Your task to perform on an android device: change keyboard looks Image 0: 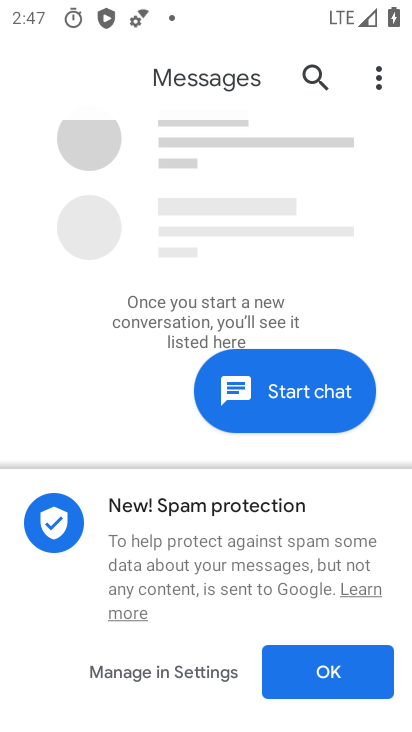
Step 0: press home button
Your task to perform on an android device: change keyboard looks Image 1: 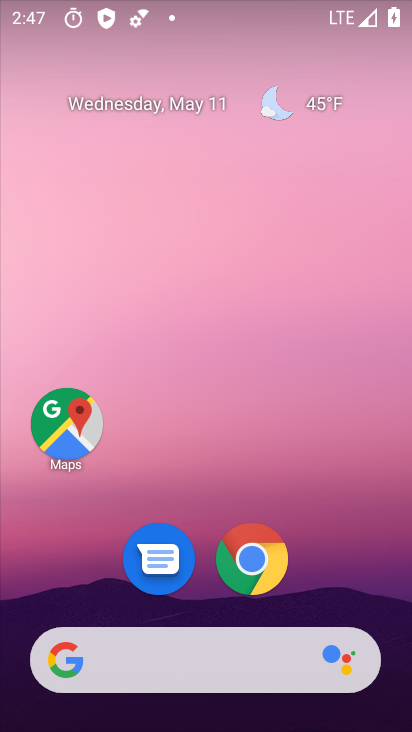
Step 1: drag from (317, 538) to (223, 77)
Your task to perform on an android device: change keyboard looks Image 2: 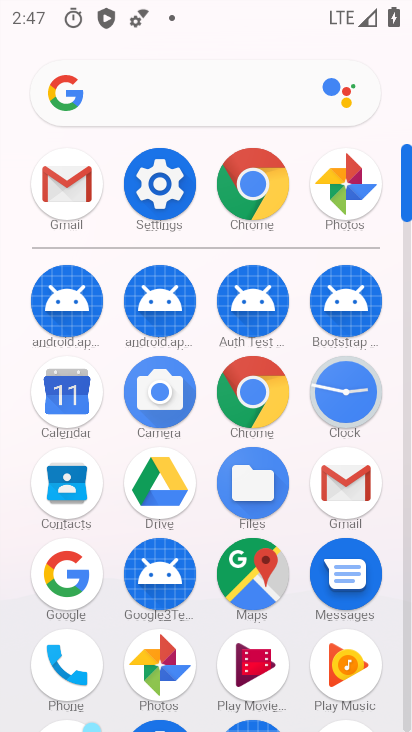
Step 2: click (156, 203)
Your task to perform on an android device: change keyboard looks Image 3: 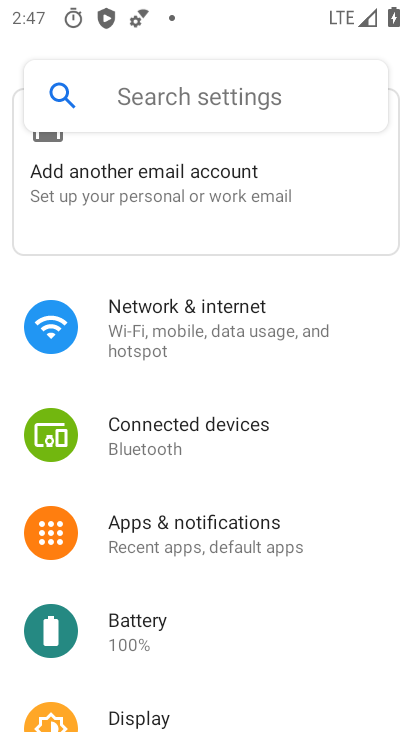
Step 3: drag from (232, 671) to (206, 146)
Your task to perform on an android device: change keyboard looks Image 4: 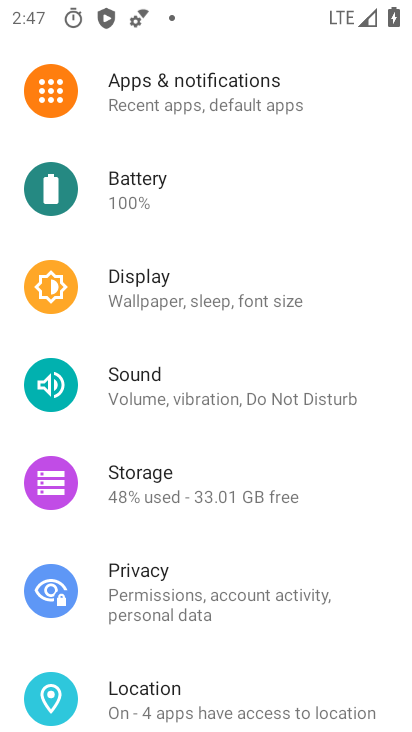
Step 4: drag from (223, 680) to (200, 178)
Your task to perform on an android device: change keyboard looks Image 5: 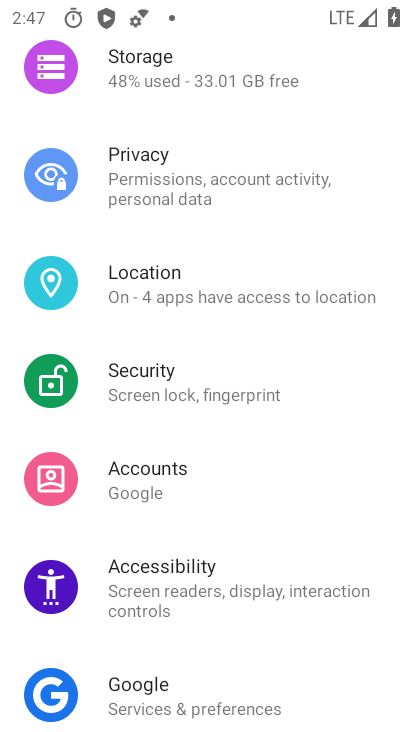
Step 5: drag from (236, 602) to (248, 196)
Your task to perform on an android device: change keyboard looks Image 6: 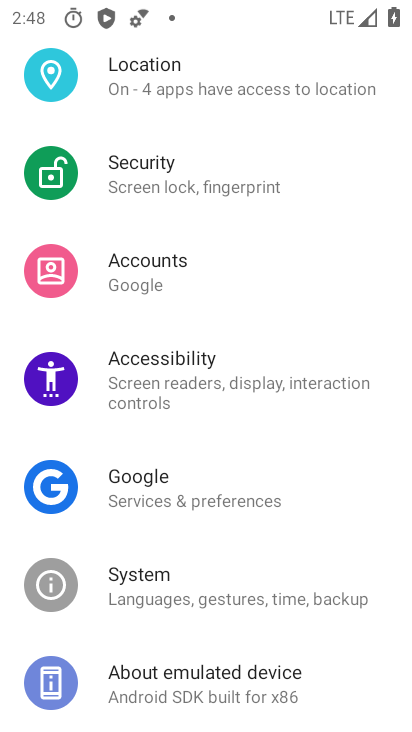
Step 6: click (157, 591)
Your task to perform on an android device: change keyboard looks Image 7: 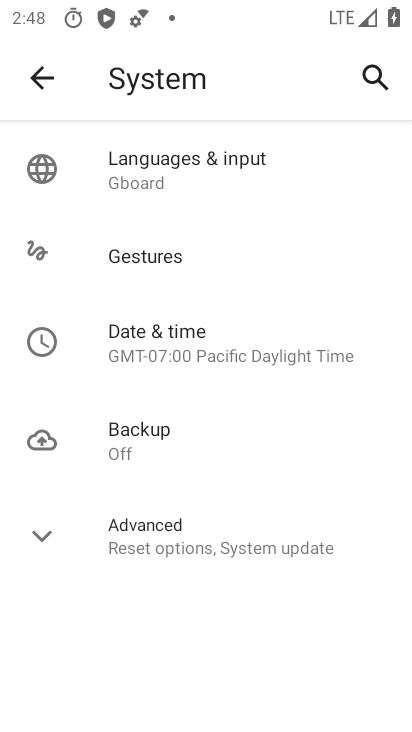
Step 7: click (182, 190)
Your task to perform on an android device: change keyboard looks Image 8: 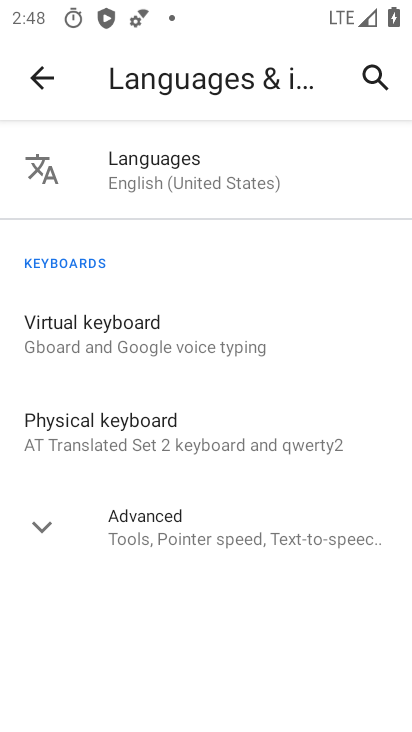
Step 8: click (164, 327)
Your task to perform on an android device: change keyboard looks Image 9: 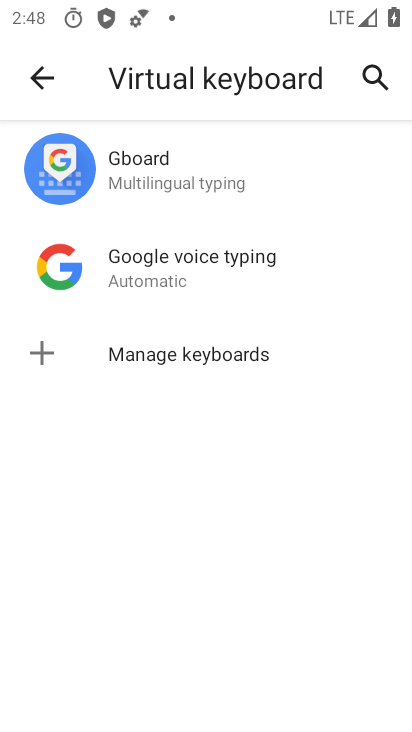
Step 9: click (194, 168)
Your task to perform on an android device: change keyboard looks Image 10: 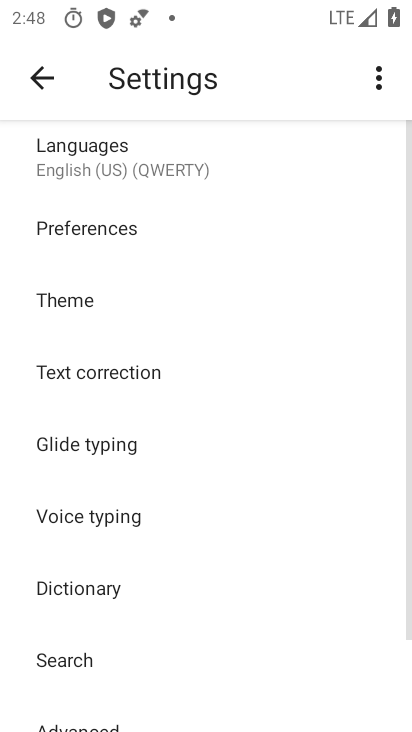
Step 10: click (117, 302)
Your task to perform on an android device: change keyboard looks Image 11: 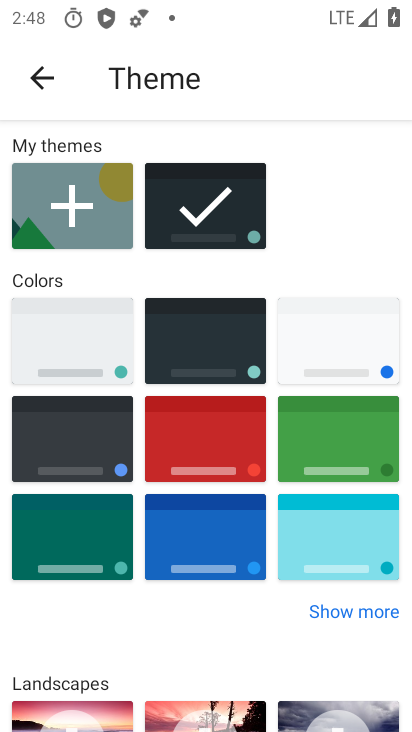
Step 11: click (193, 363)
Your task to perform on an android device: change keyboard looks Image 12: 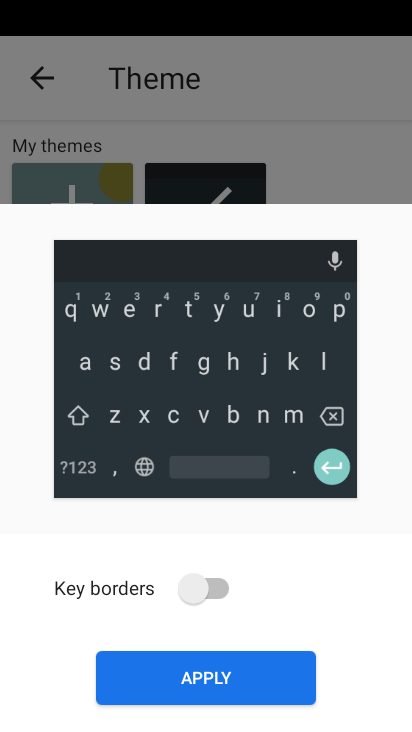
Step 12: click (210, 677)
Your task to perform on an android device: change keyboard looks Image 13: 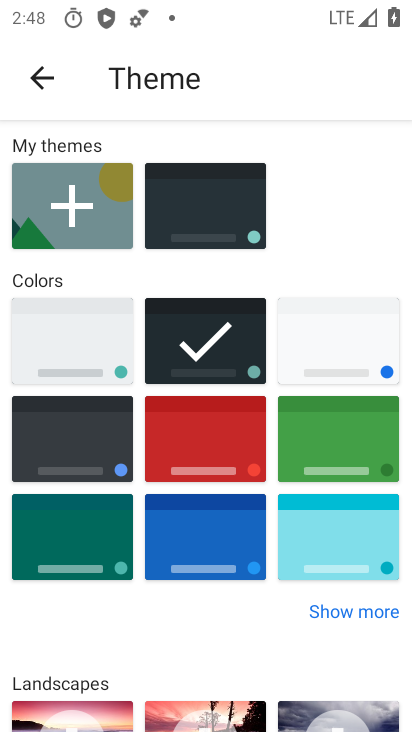
Step 13: task complete